Your task to perform on an android device: Open Google Chrome and open the bookmarks view Image 0: 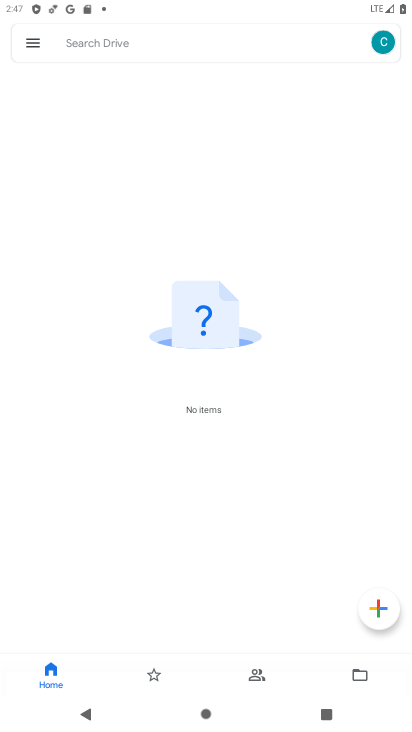
Step 0: press home button
Your task to perform on an android device: Open Google Chrome and open the bookmarks view Image 1: 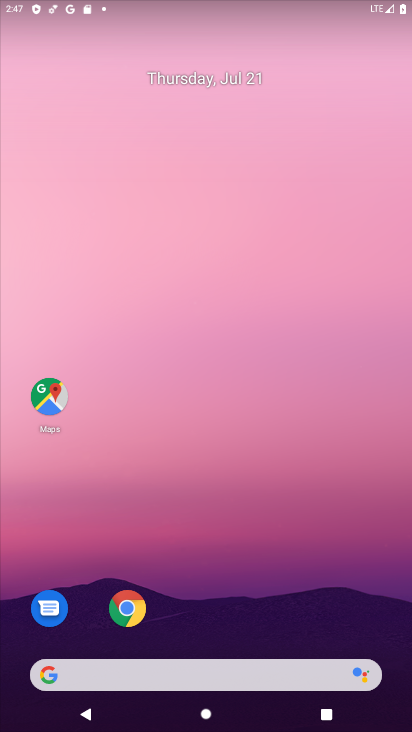
Step 1: drag from (228, 635) to (218, 101)
Your task to perform on an android device: Open Google Chrome and open the bookmarks view Image 2: 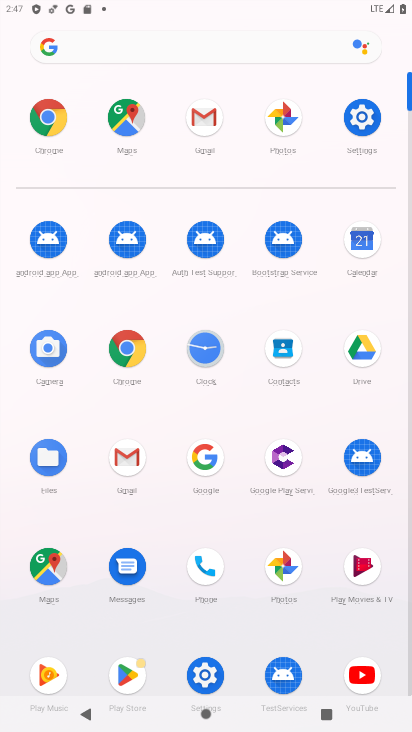
Step 2: click (146, 361)
Your task to perform on an android device: Open Google Chrome and open the bookmarks view Image 3: 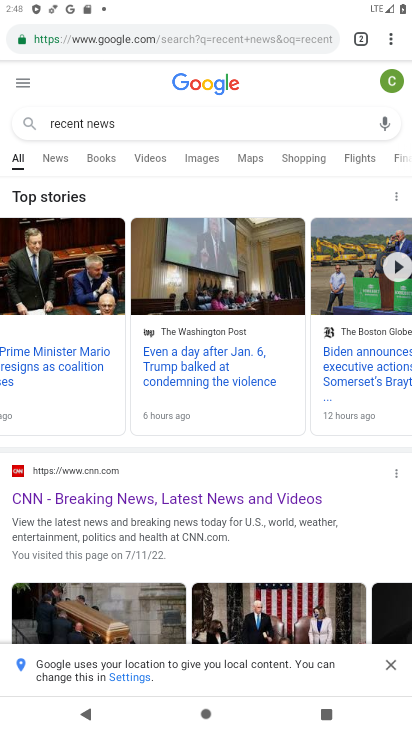
Step 3: task complete